Your task to perform on an android device: see tabs open on other devices in the chrome app Image 0: 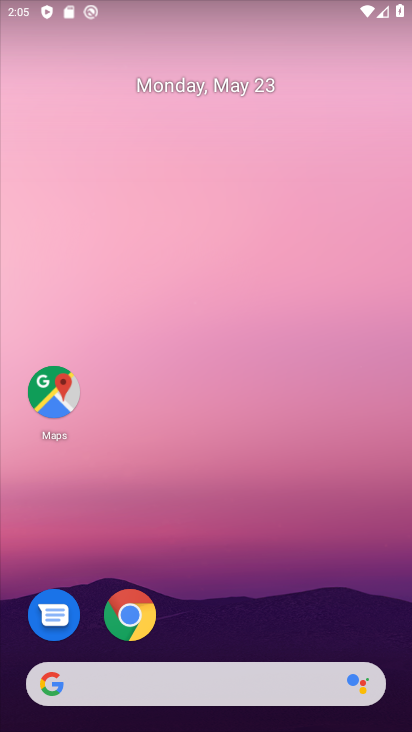
Step 0: click (130, 615)
Your task to perform on an android device: see tabs open on other devices in the chrome app Image 1: 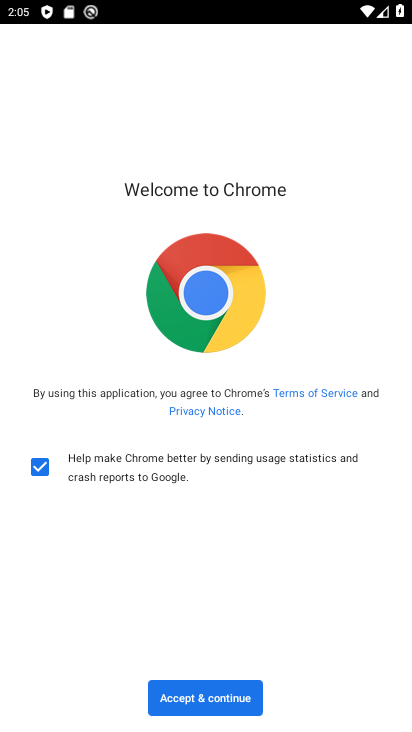
Step 1: click (177, 702)
Your task to perform on an android device: see tabs open on other devices in the chrome app Image 2: 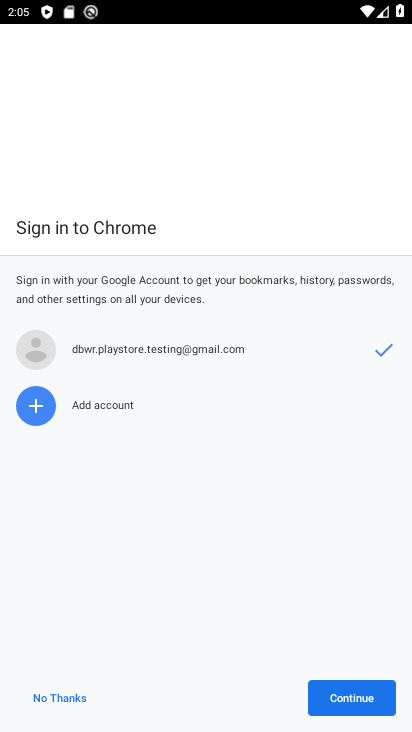
Step 2: click (67, 703)
Your task to perform on an android device: see tabs open on other devices in the chrome app Image 3: 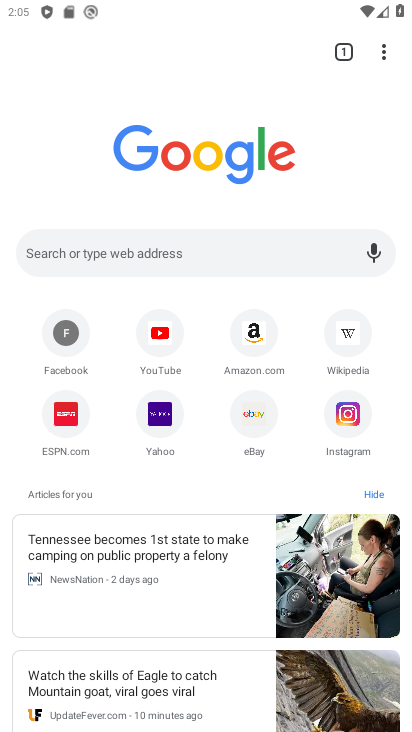
Step 3: click (386, 55)
Your task to perform on an android device: see tabs open on other devices in the chrome app Image 4: 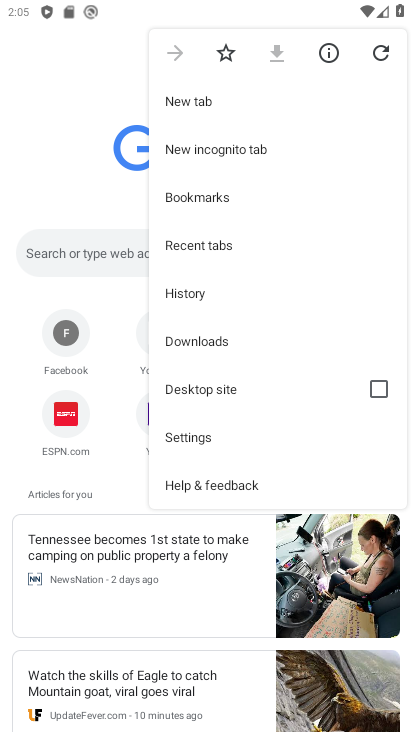
Step 4: click (193, 246)
Your task to perform on an android device: see tabs open on other devices in the chrome app Image 5: 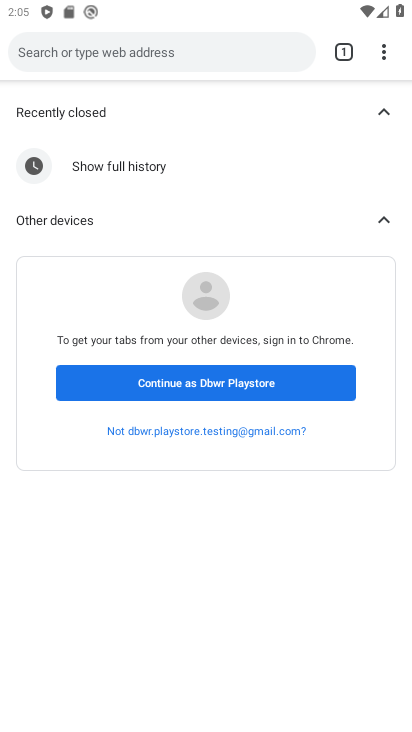
Step 5: click (191, 374)
Your task to perform on an android device: see tabs open on other devices in the chrome app Image 6: 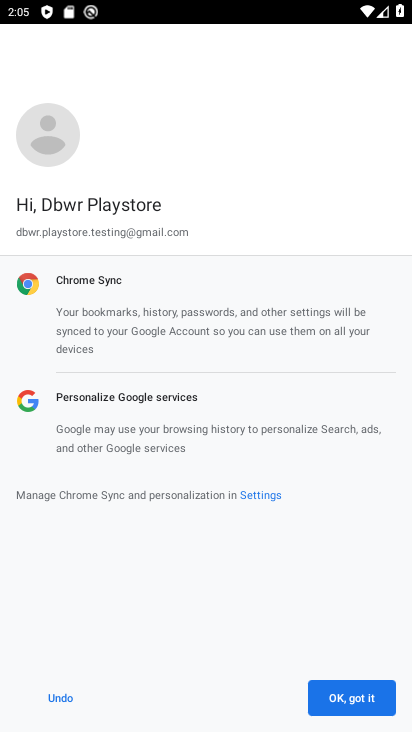
Step 6: click (343, 701)
Your task to perform on an android device: see tabs open on other devices in the chrome app Image 7: 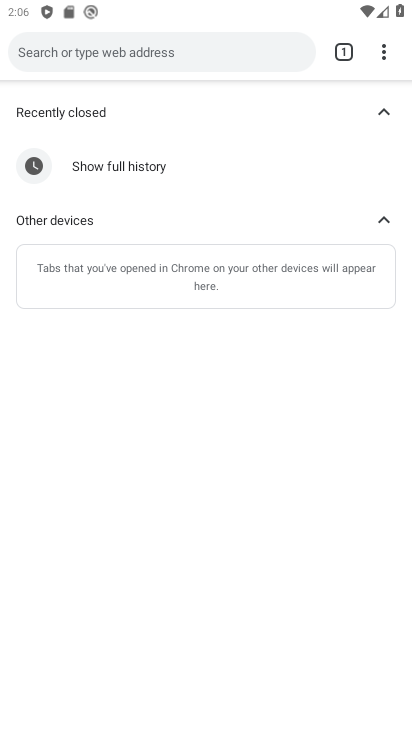
Step 7: task complete